Your task to perform on an android device: Search for "logitech g933" on target, select the first entry, add it to the cart, then select checkout. Image 0: 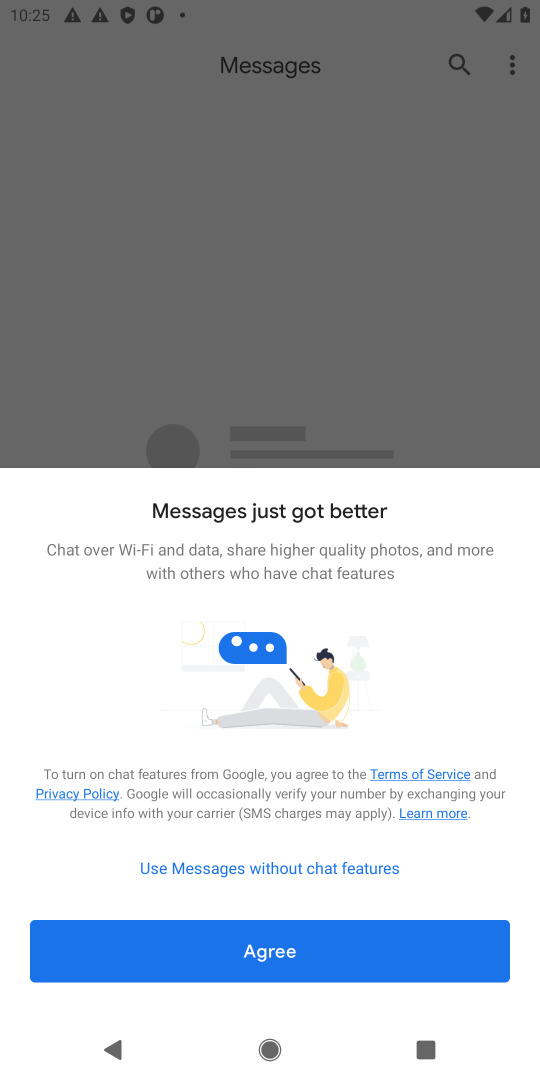
Step 0: press home button
Your task to perform on an android device: Search for "logitech g933" on target, select the first entry, add it to the cart, then select checkout. Image 1: 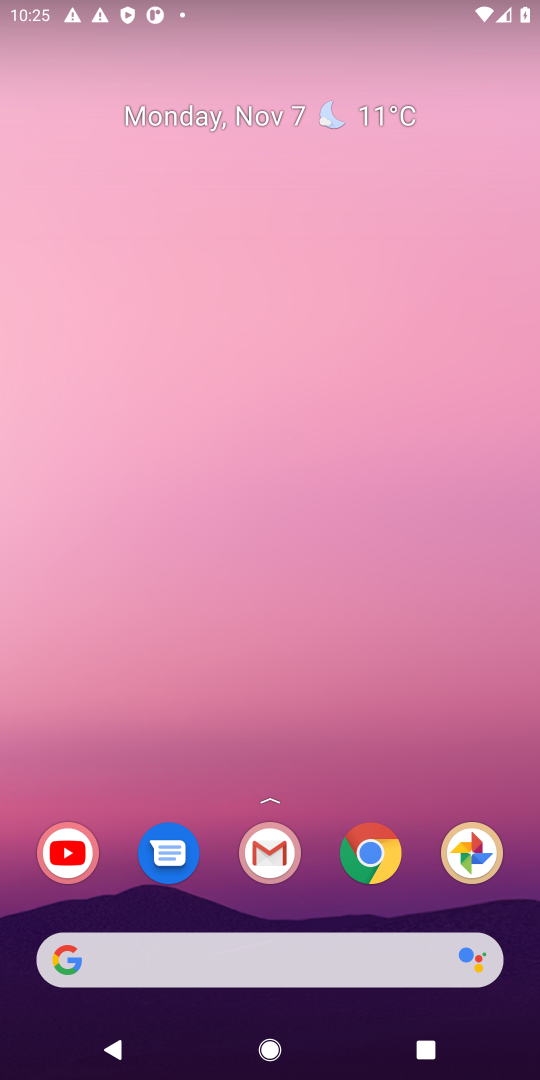
Step 1: click (247, 980)
Your task to perform on an android device: Search for "logitech g933" on target, select the first entry, add it to the cart, then select checkout. Image 2: 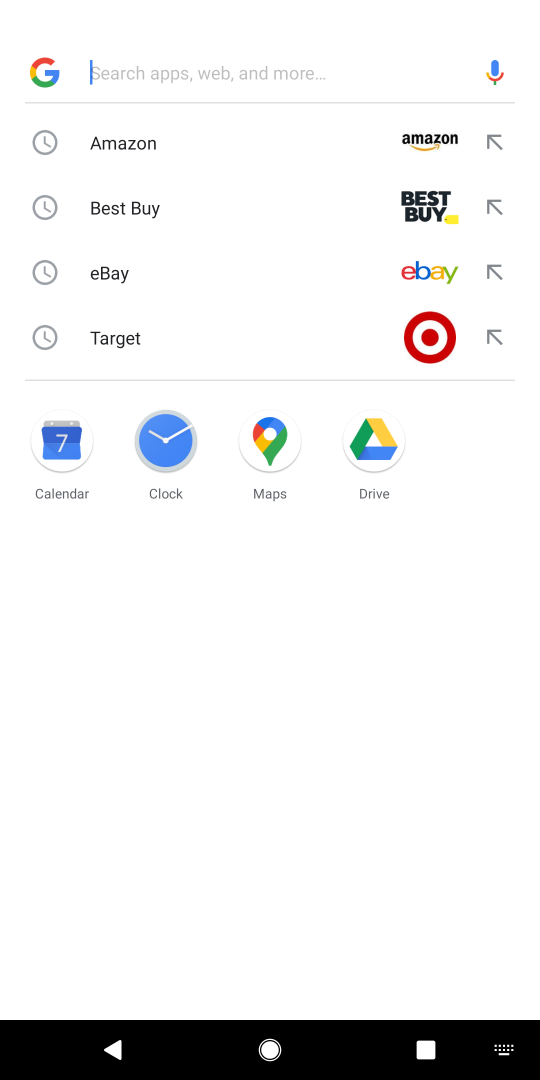
Step 2: click (237, 361)
Your task to perform on an android device: Search for "logitech g933" on target, select the first entry, add it to the cart, then select checkout. Image 3: 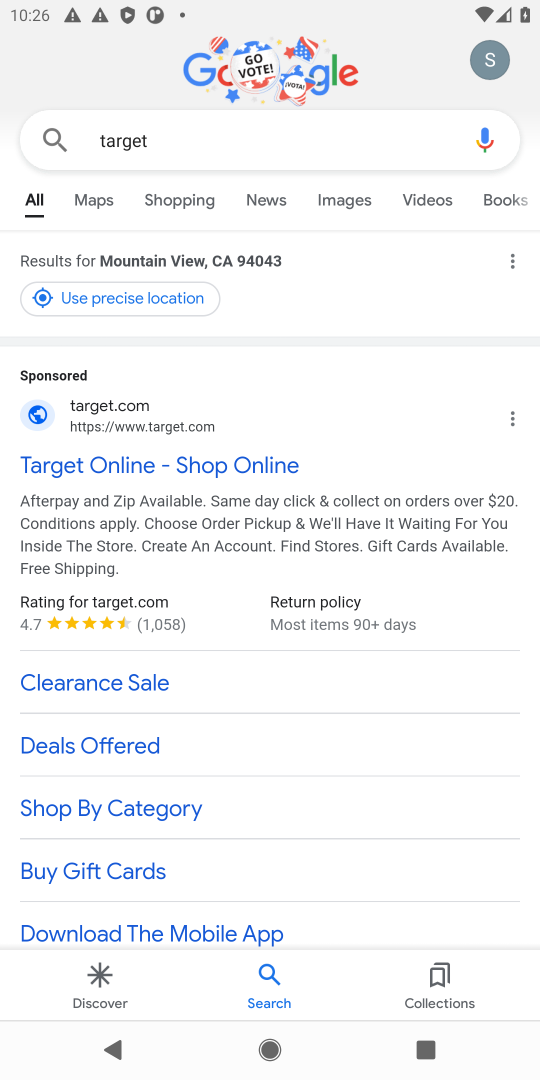
Step 3: click (133, 446)
Your task to perform on an android device: Search for "logitech g933" on target, select the first entry, add it to the cart, then select checkout. Image 4: 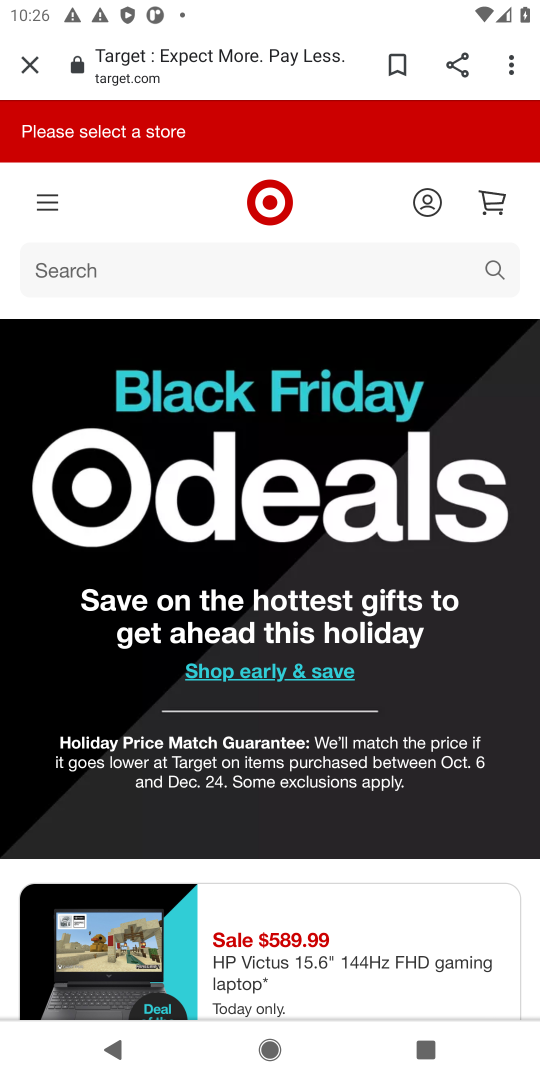
Step 4: click (280, 275)
Your task to perform on an android device: Search for "logitech g933" on target, select the first entry, add it to the cart, then select checkout. Image 5: 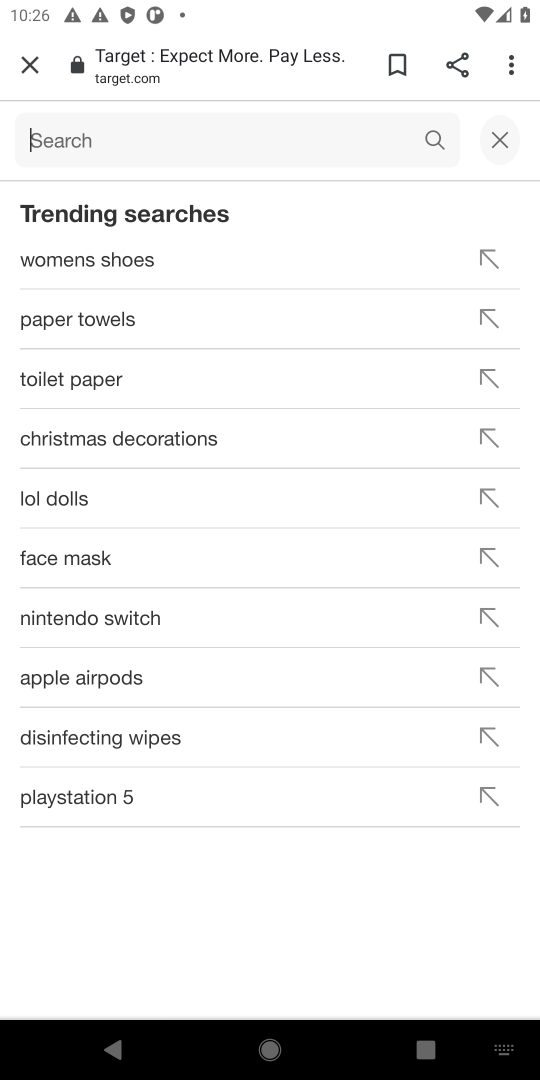
Step 5: type "logitech g933"
Your task to perform on an android device: Search for "logitech g933" on target, select the first entry, add it to the cart, then select checkout. Image 6: 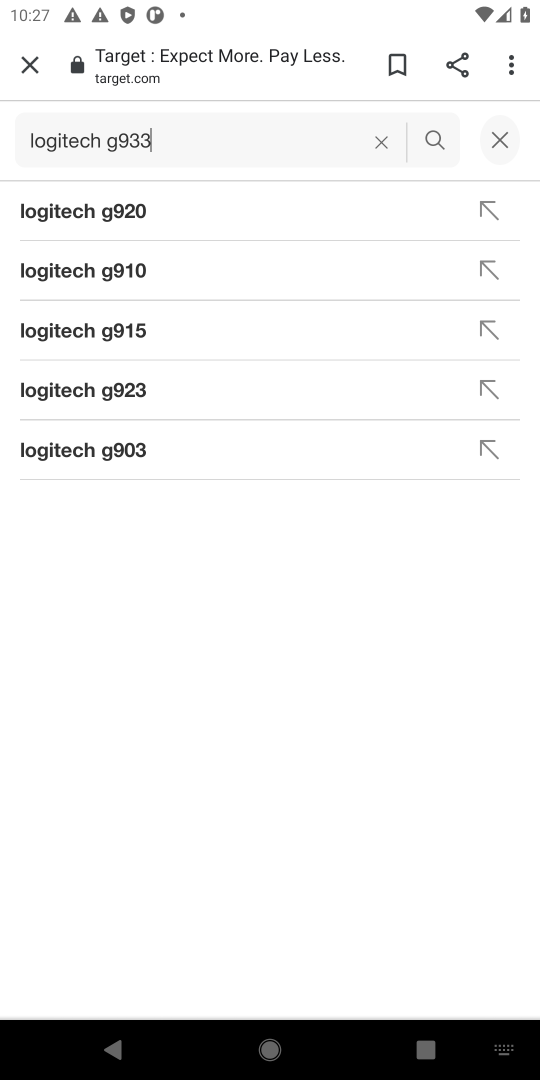
Step 6: click (436, 150)
Your task to perform on an android device: Search for "logitech g933" on target, select the first entry, add it to the cart, then select checkout. Image 7: 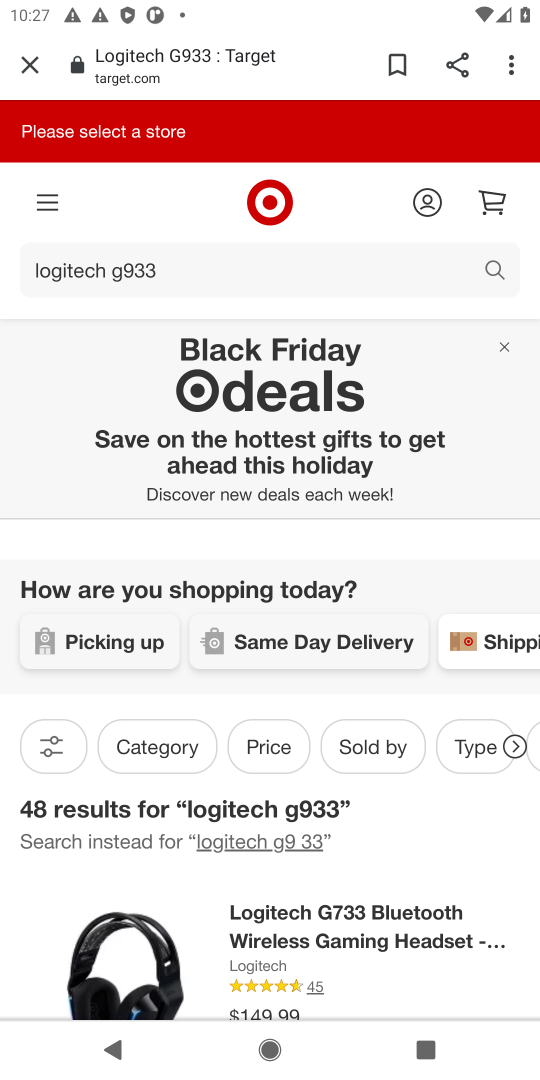
Step 7: task complete